Your task to perform on an android device: Search for apple airpods on ebay, select the first entry, and add it to the cart. Image 0: 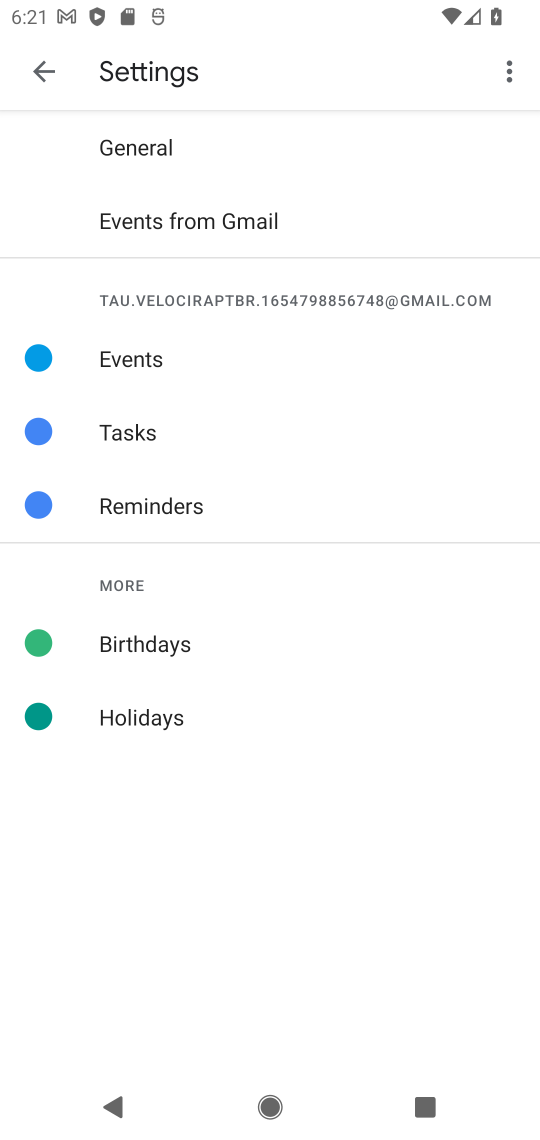
Step 0: press home button
Your task to perform on an android device: Search for apple airpods on ebay, select the first entry, and add it to the cart. Image 1: 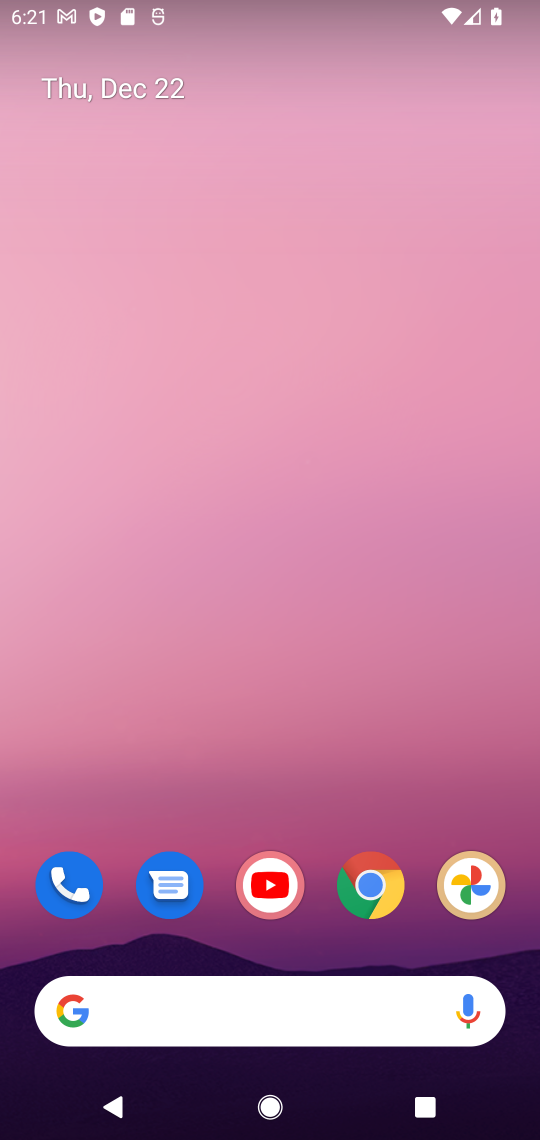
Step 1: click (371, 894)
Your task to perform on an android device: Search for apple airpods on ebay, select the first entry, and add it to the cart. Image 2: 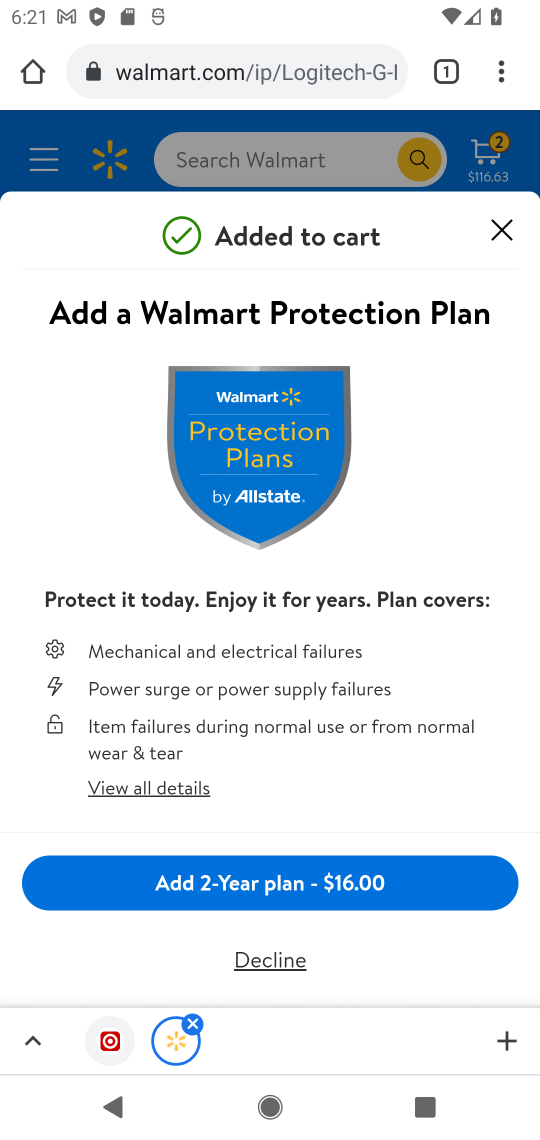
Step 2: click (164, 74)
Your task to perform on an android device: Search for apple airpods on ebay, select the first entry, and add it to the cart. Image 3: 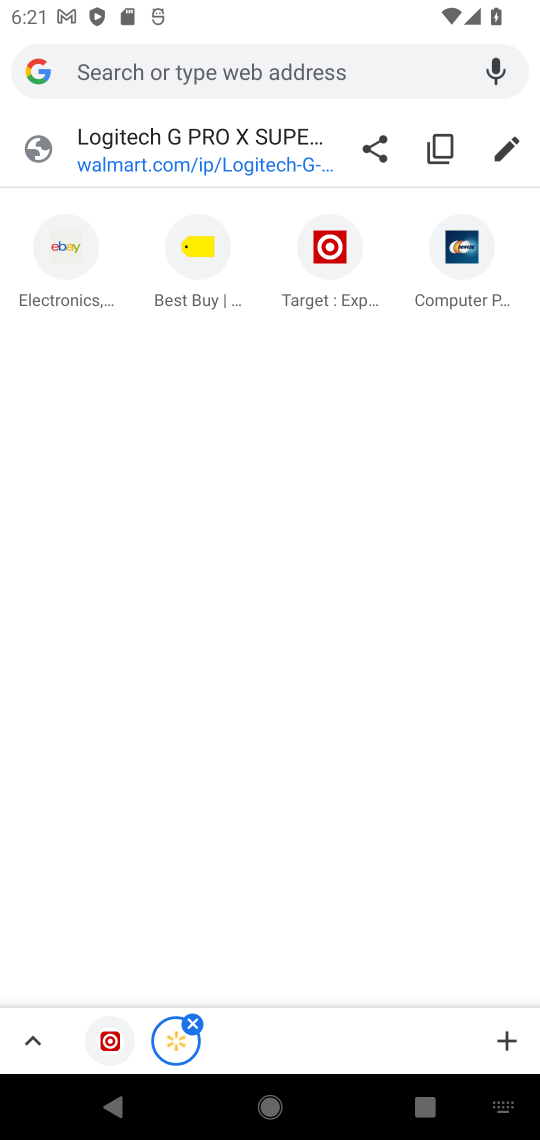
Step 3: click (68, 248)
Your task to perform on an android device: Search for apple airpods on ebay, select the first entry, and add it to the cart. Image 4: 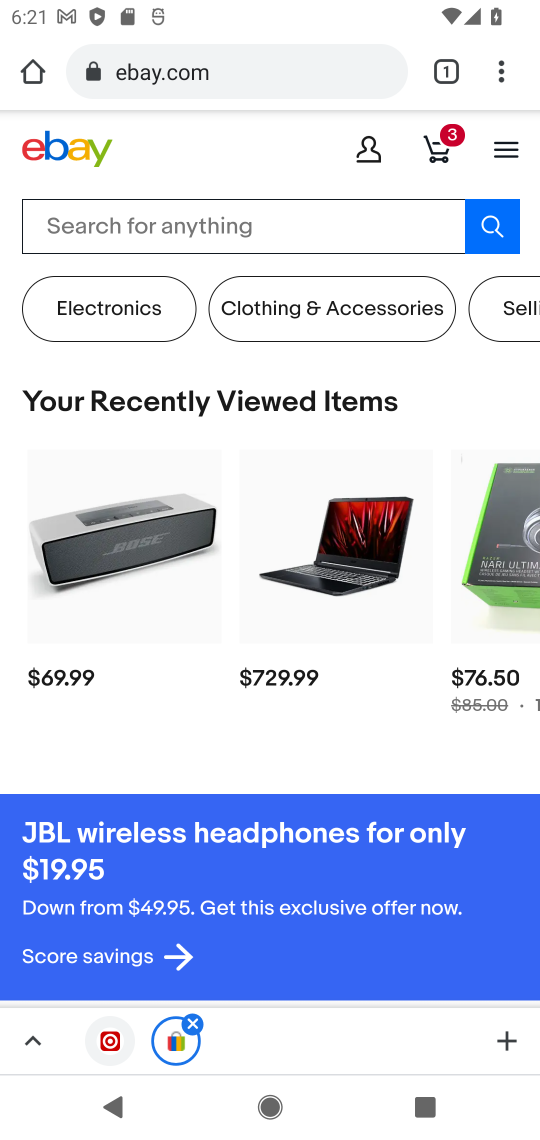
Step 4: click (48, 238)
Your task to perform on an android device: Search for apple airpods on ebay, select the first entry, and add it to the cart. Image 5: 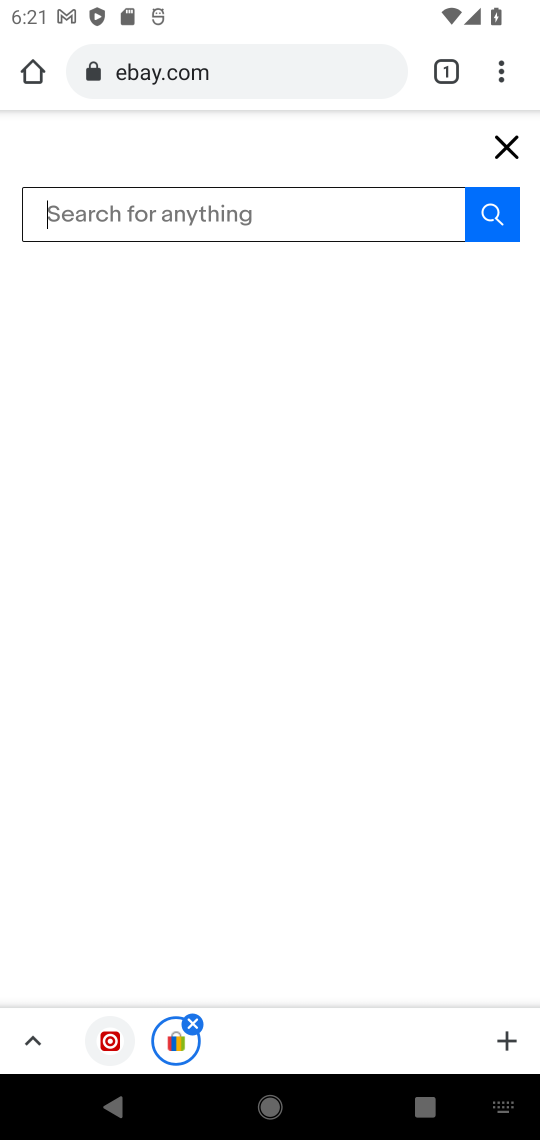
Step 5: type "apple airpods"
Your task to perform on an android device: Search for apple airpods on ebay, select the first entry, and add it to the cart. Image 6: 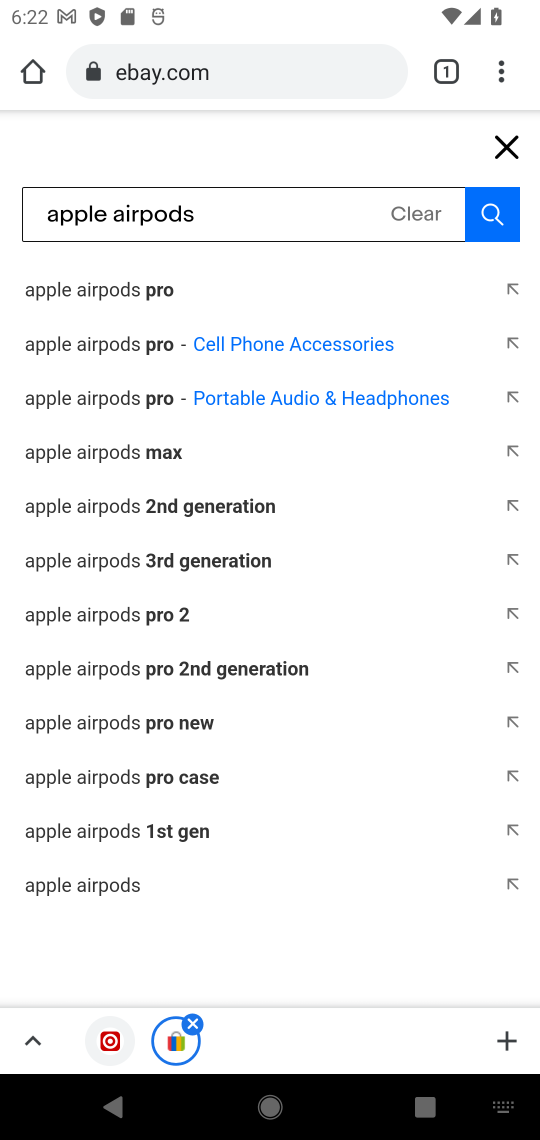
Step 6: click (81, 885)
Your task to perform on an android device: Search for apple airpods on ebay, select the first entry, and add it to the cart. Image 7: 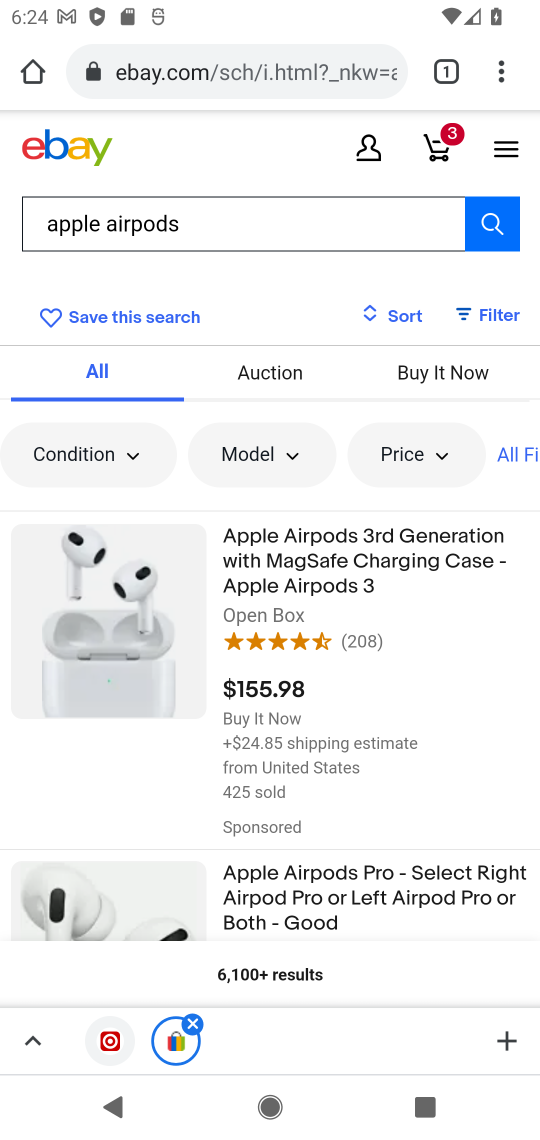
Step 7: click (263, 584)
Your task to perform on an android device: Search for apple airpods on ebay, select the first entry, and add it to the cart. Image 8: 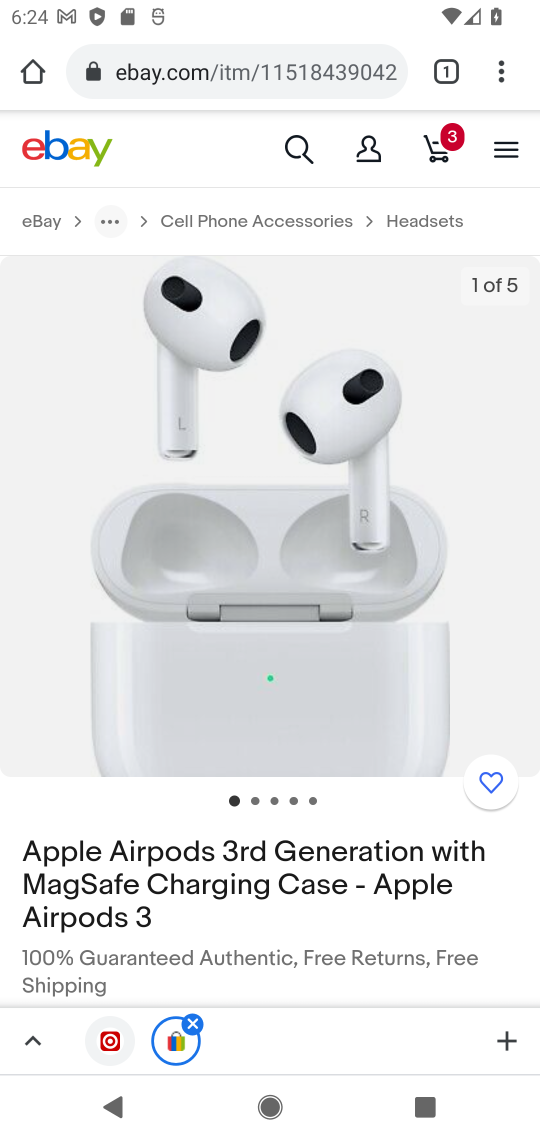
Step 8: drag from (229, 836) to (261, 159)
Your task to perform on an android device: Search for apple airpods on ebay, select the first entry, and add it to the cart. Image 9: 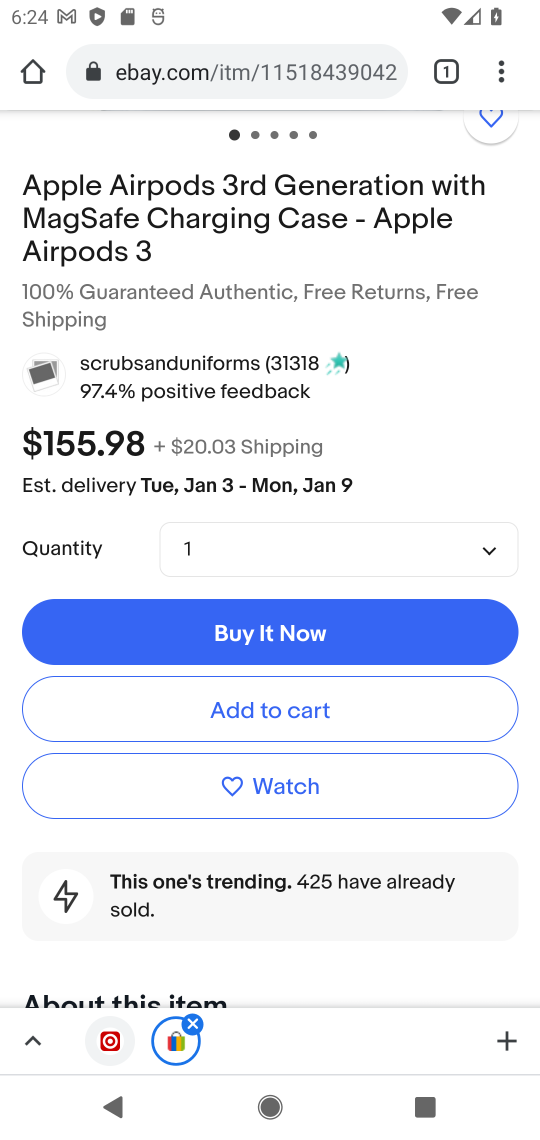
Step 9: click (236, 703)
Your task to perform on an android device: Search for apple airpods on ebay, select the first entry, and add it to the cart. Image 10: 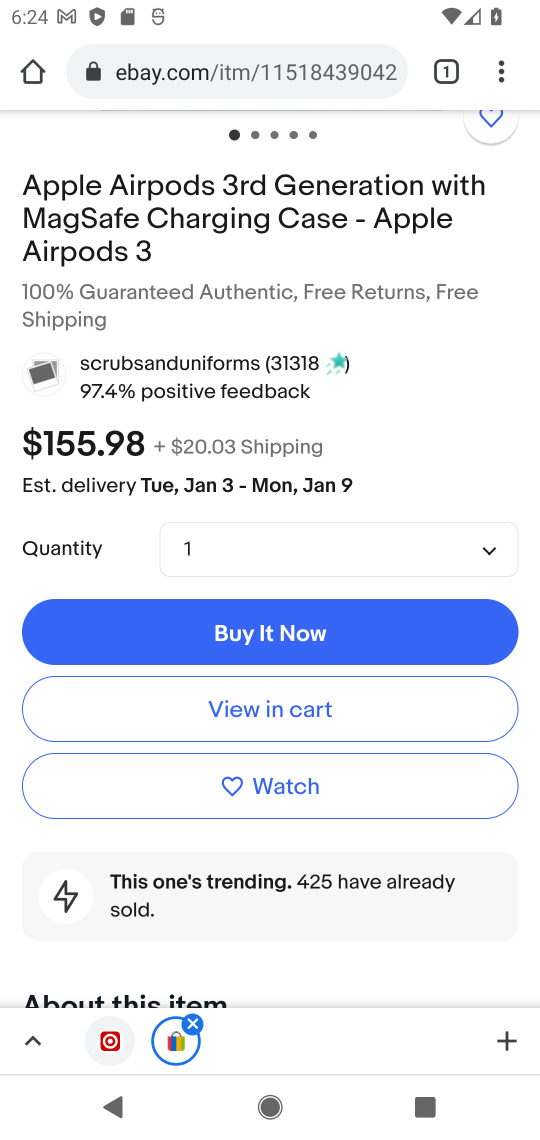
Step 10: task complete